Your task to perform on an android device: change notification settings in the gmail app Image 0: 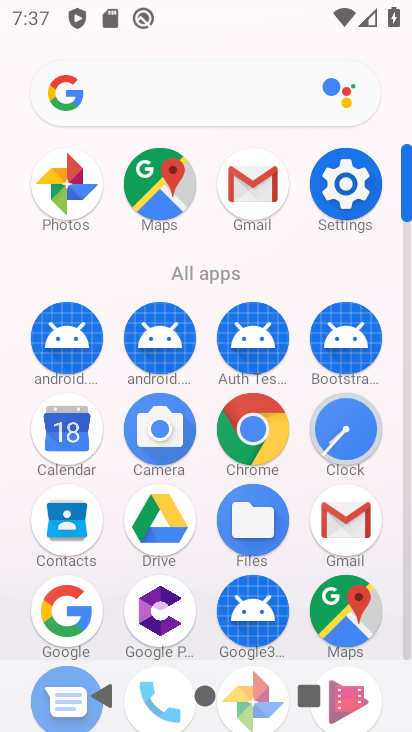
Step 0: click (335, 188)
Your task to perform on an android device: change notification settings in the gmail app Image 1: 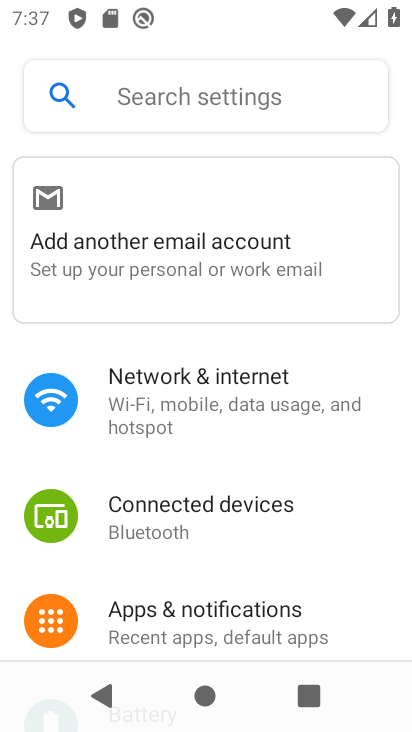
Step 1: click (224, 618)
Your task to perform on an android device: change notification settings in the gmail app Image 2: 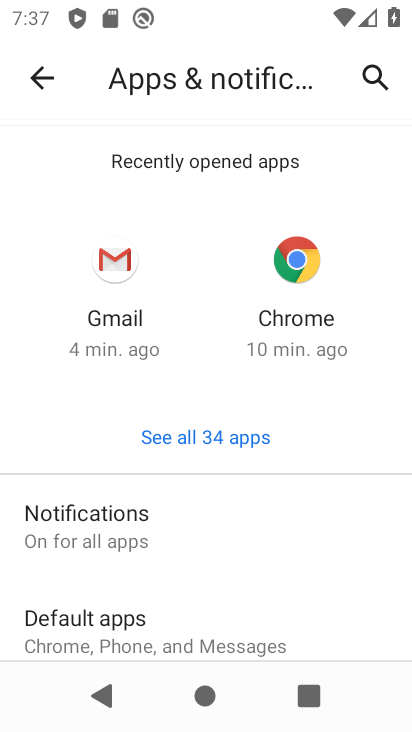
Step 2: click (116, 260)
Your task to perform on an android device: change notification settings in the gmail app Image 3: 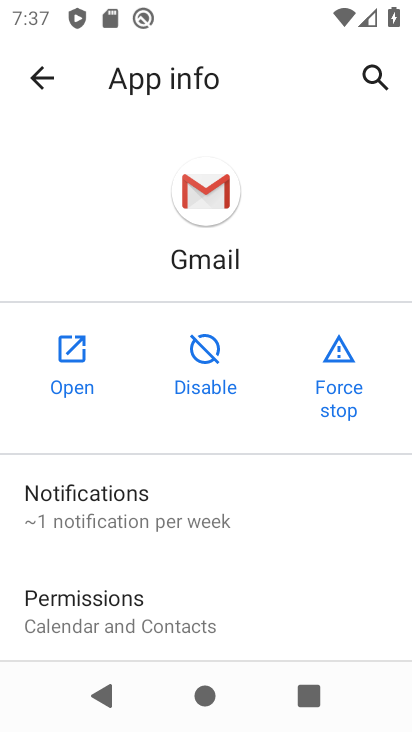
Step 3: click (140, 505)
Your task to perform on an android device: change notification settings in the gmail app Image 4: 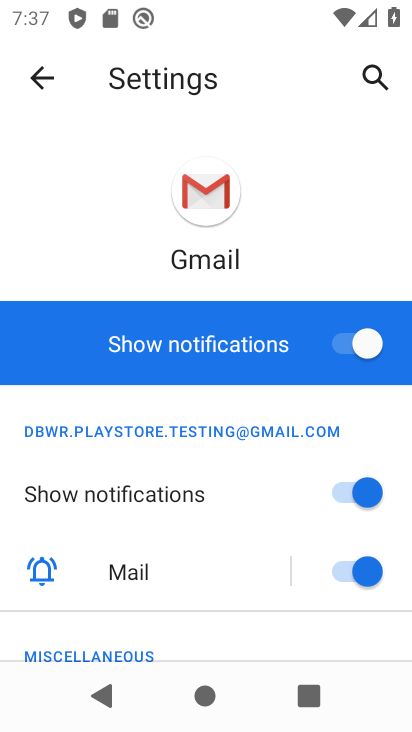
Step 4: click (346, 338)
Your task to perform on an android device: change notification settings in the gmail app Image 5: 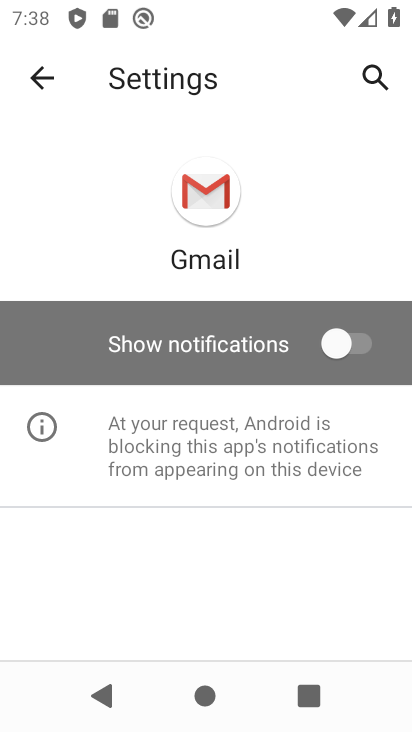
Step 5: task complete